Your task to perform on an android device: Show me popular videos on Youtube Image 0: 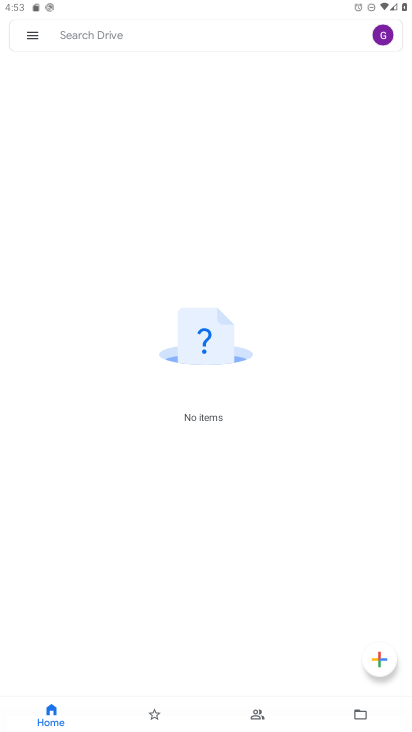
Step 0: press home button
Your task to perform on an android device: Show me popular videos on Youtube Image 1: 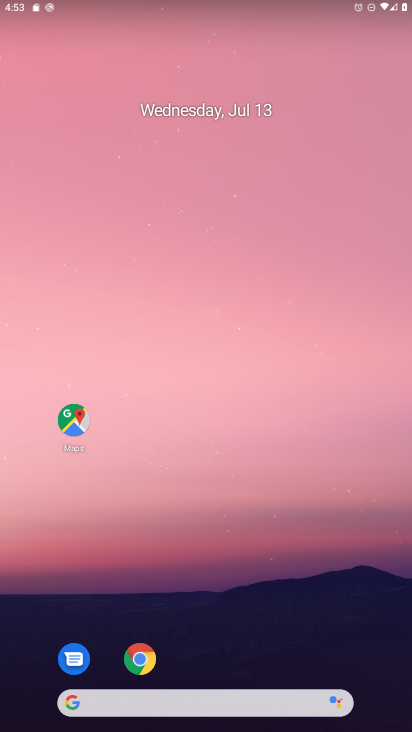
Step 1: drag from (269, 603) to (270, 140)
Your task to perform on an android device: Show me popular videos on Youtube Image 2: 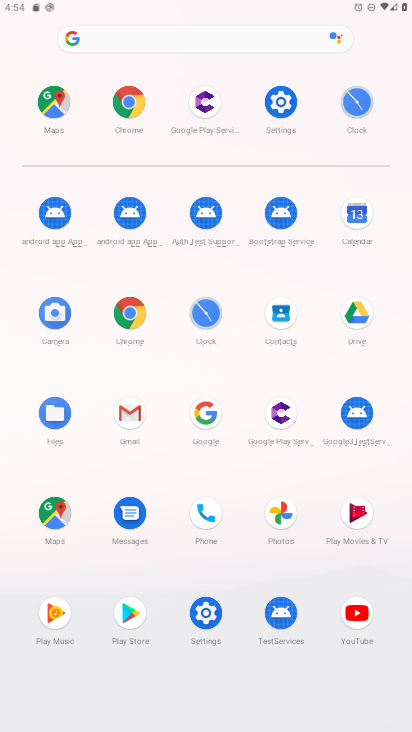
Step 2: click (353, 620)
Your task to perform on an android device: Show me popular videos on Youtube Image 3: 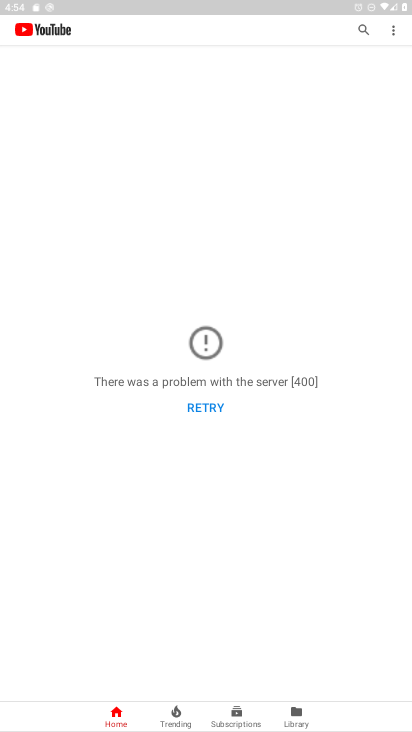
Step 3: click (354, 611)
Your task to perform on an android device: Show me popular videos on Youtube Image 4: 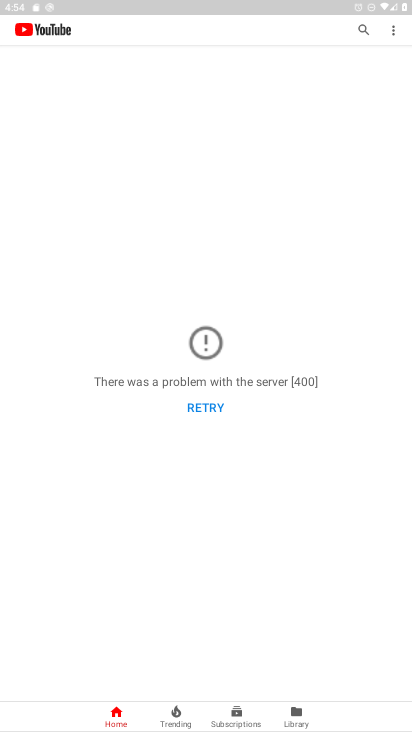
Step 4: task complete